Your task to perform on an android device: Open the calendar app, open the side menu, and click the "Day" option Image 0: 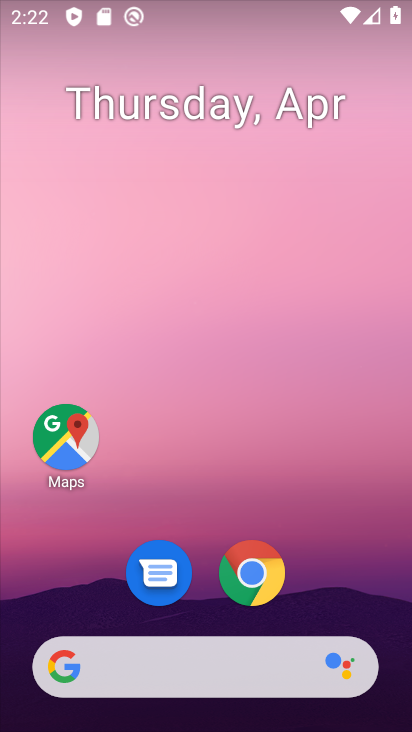
Step 0: drag from (334, 598) to (257, 202)
Your task to perform on an android device: Open the calendar app, open the side menu, and click the "Day" option Image 1: 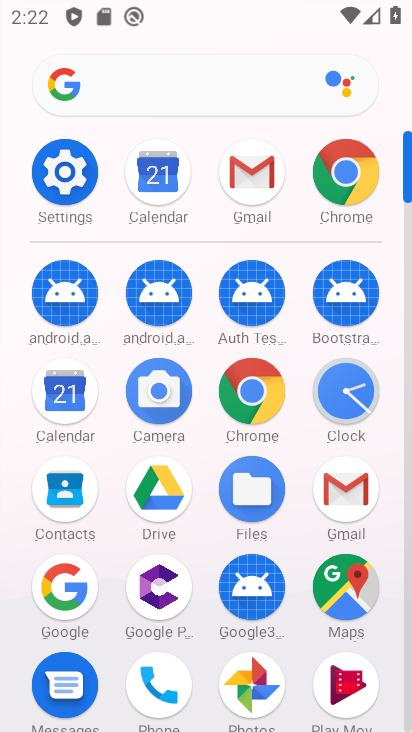
Step 1: click (155, 188)
Your task to perform on an android device: Open the calendar app, open the side menu, and click the "Day" option Image 2: 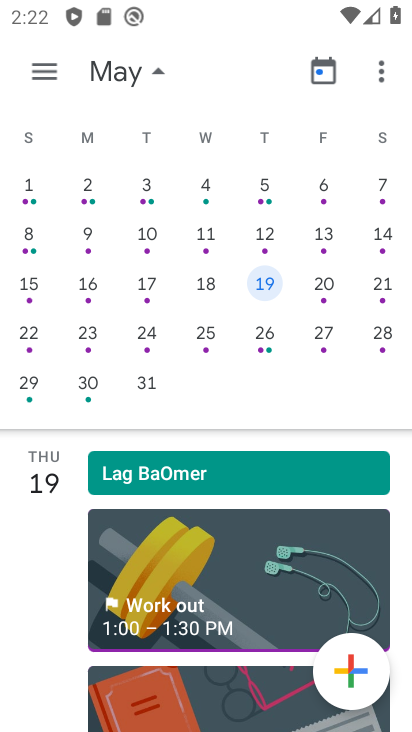
Step 2: click (46, 69)
Your task to perform on an android device: Open the calendar app, open the side menu, and click the "Day" option Image 3: 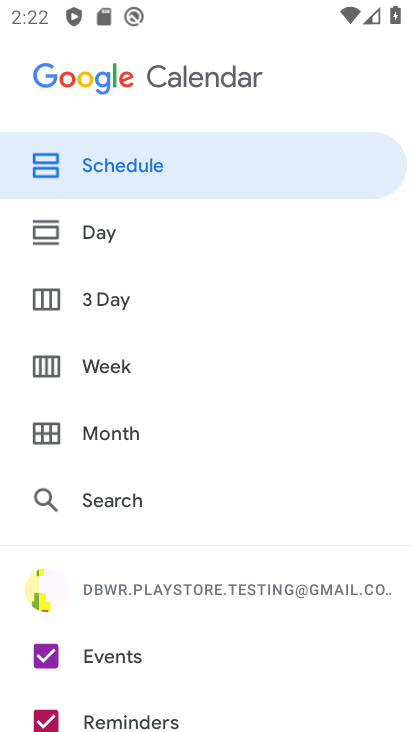
Step 3: click (205, 228)
Your task to perform on an android device: Open the calendar app, open the side menu, and click the "Day" option Image 4: 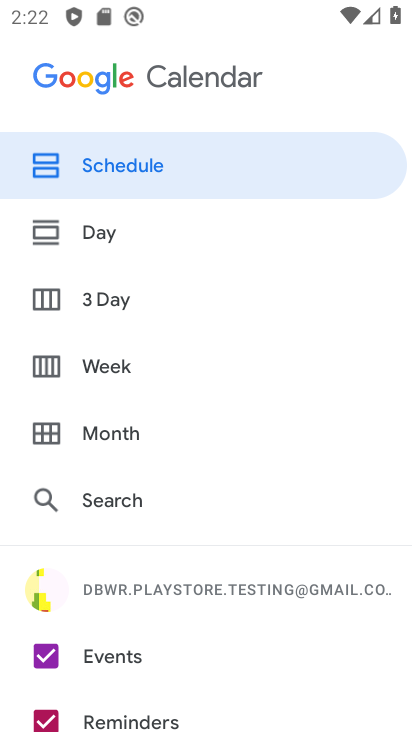
Step 4: click (176, 235)
Your task to perform on an android device: Open the calendar app, open the side menu, and click the "Day" option Image 5: 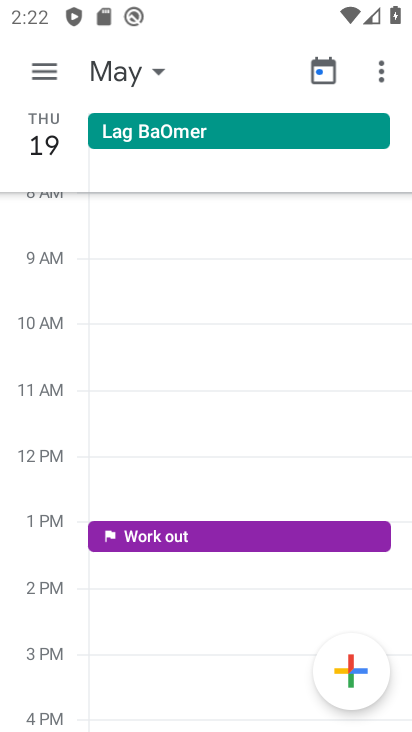
Step 5: task complete